Your task to perform on an android device: check out phone information Image 0: 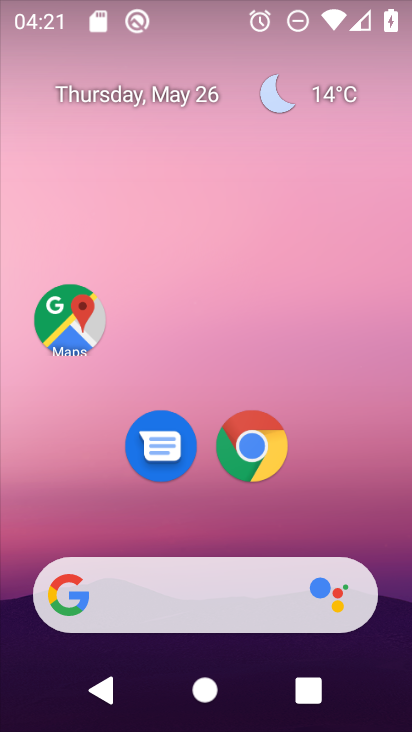
Step 0: drag from (368, 551) to (383, 11)
Your task to perform on an android device: check out phone information Image 1: 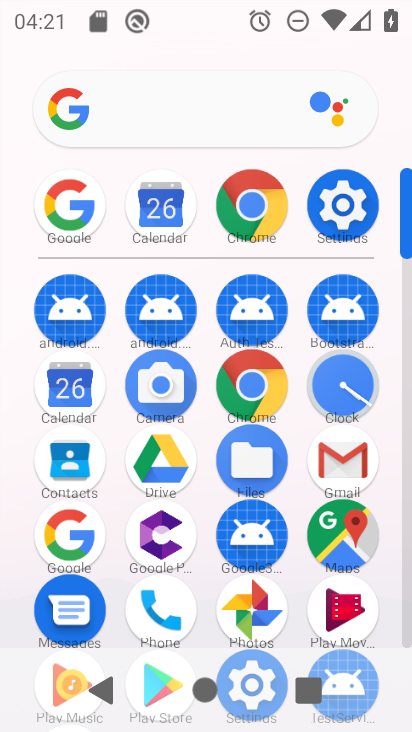
Step 1: click (344, 212)
Your task to perform on an android device: check out phone information Image 2: 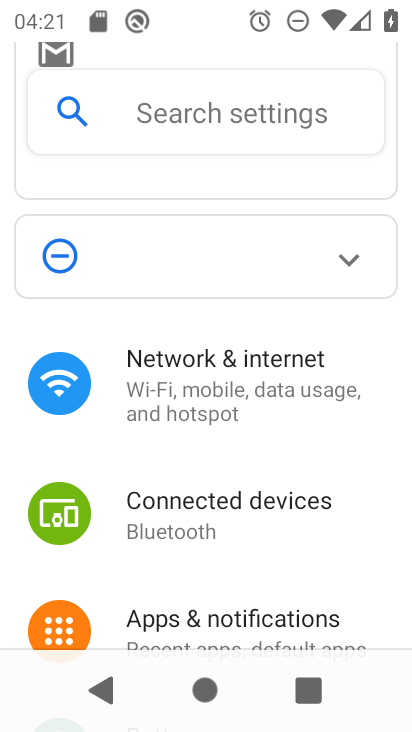
Step 2: drag from (338, 536) to (318, 98)
Your task to perform on an android device: check out phone information Image 3: 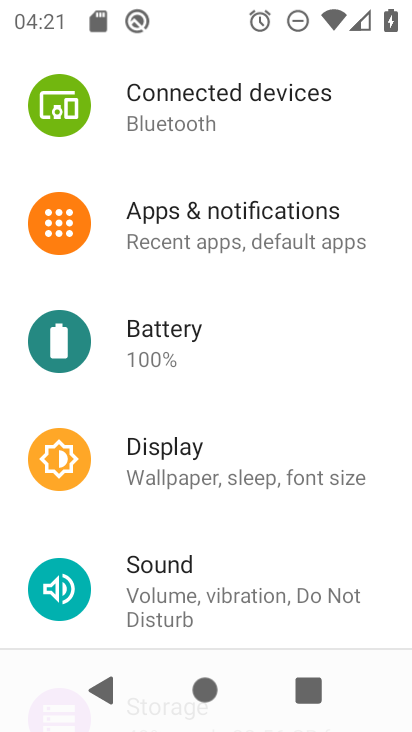
Step 3: drag from (331, 570) to (292, 60)
Your task to perform on an android device: check out phone information Image 4: 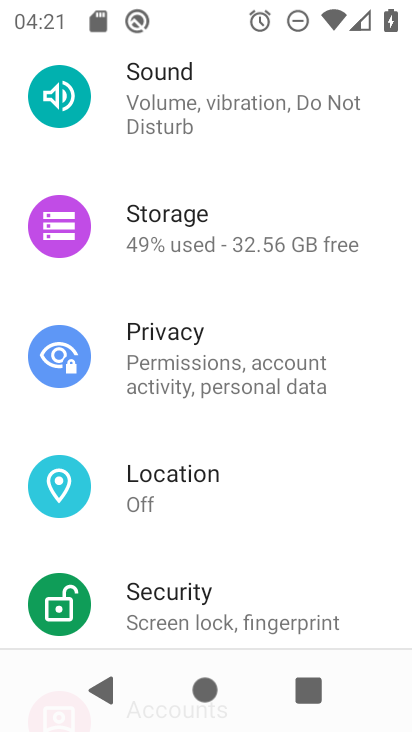
Step 4: drag from (262, 556) to (260, 101)
Your task to perform on an android device: check out phone information Image 5: 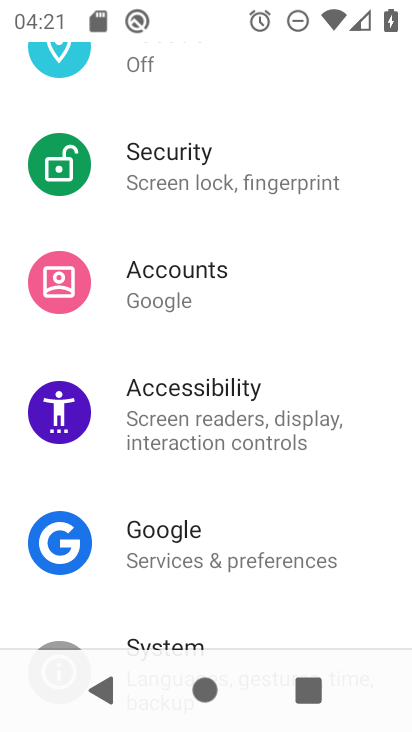
Step 5: drag from (239, 528) to (229, 112)
Your task to perform on an android device: check out phone information Image 6: 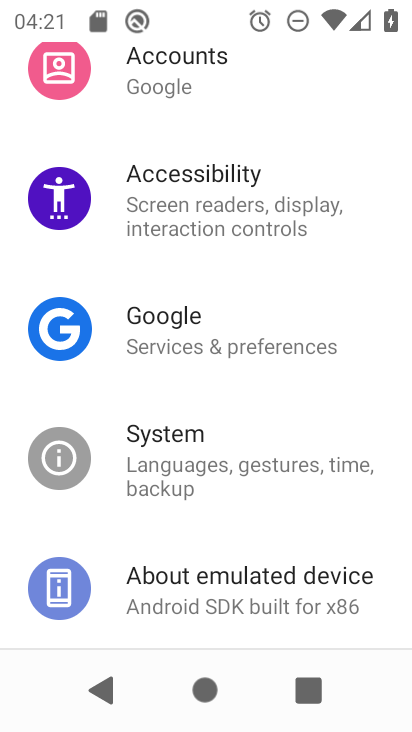
Step 6: drag from (223, 548) to (224, 245)
Your task to perform on an android device: check out phone information Image 7: 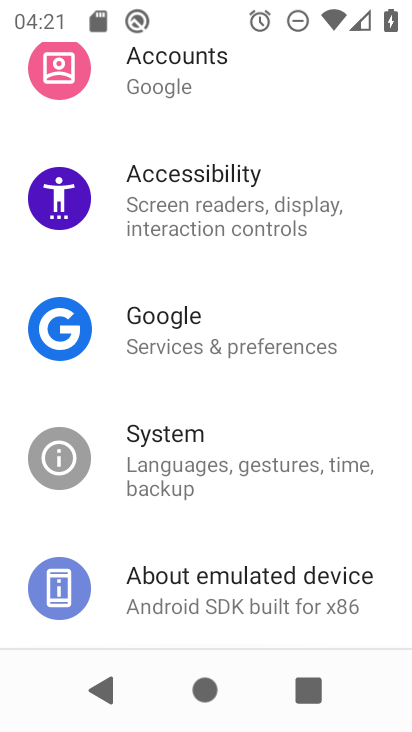
Step 7: click (195, 611)
Your task to perform on an android device: check out phone information Image 8: 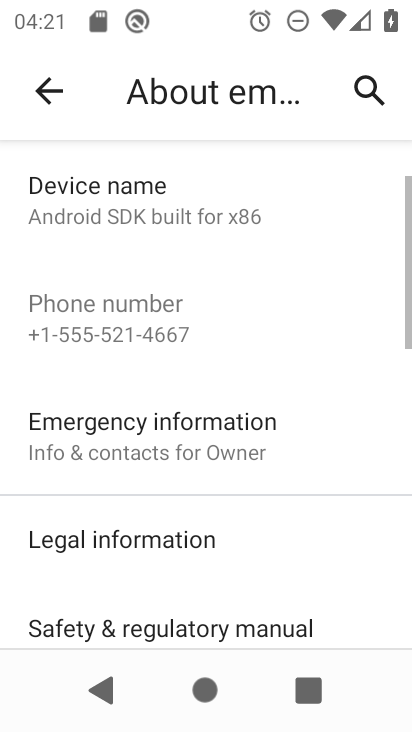
Step 8: task complete